Your task to perform on an android device: How do I get to the nearest Apple Store? Image 0: 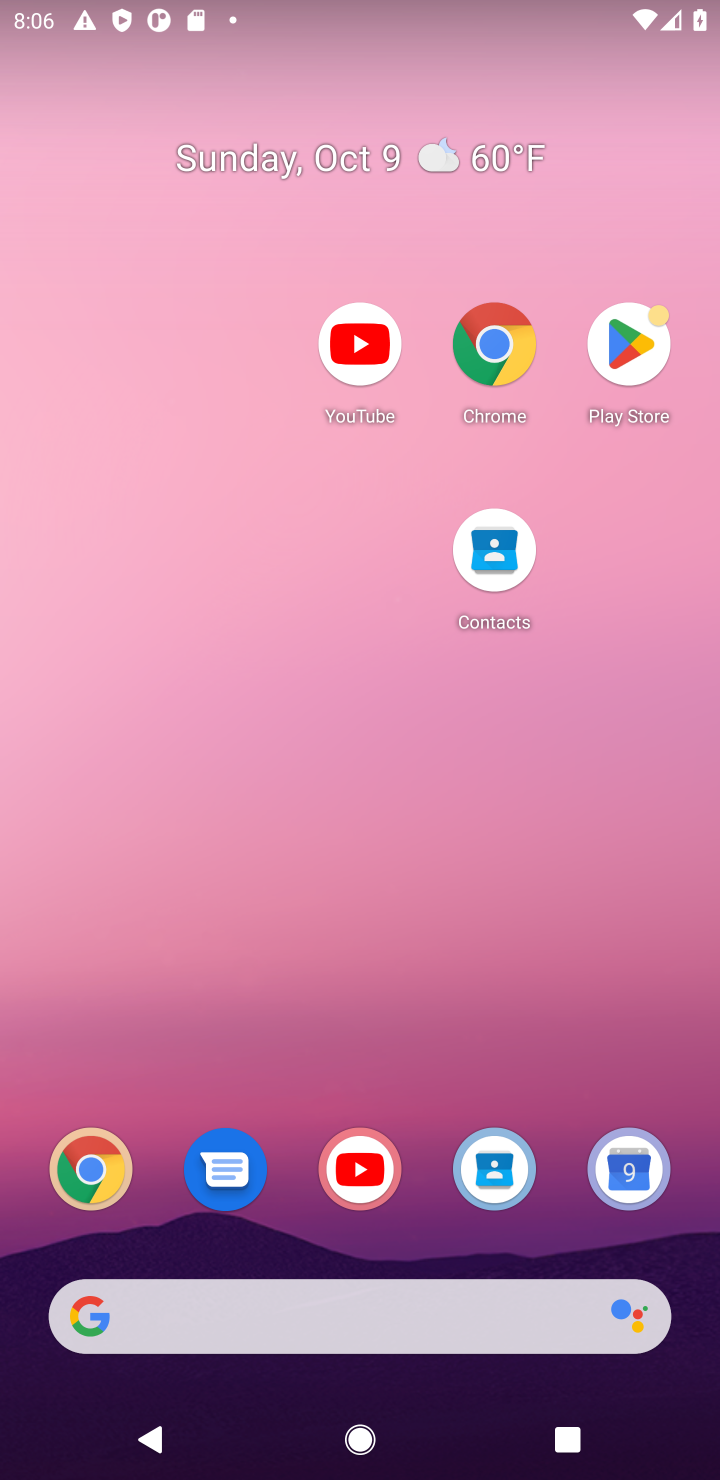
Step 0: drag from (445, 1257) to (365, 180)
Your task to perform on an android device: How do I get to the nearest Apple Store? Image 1: 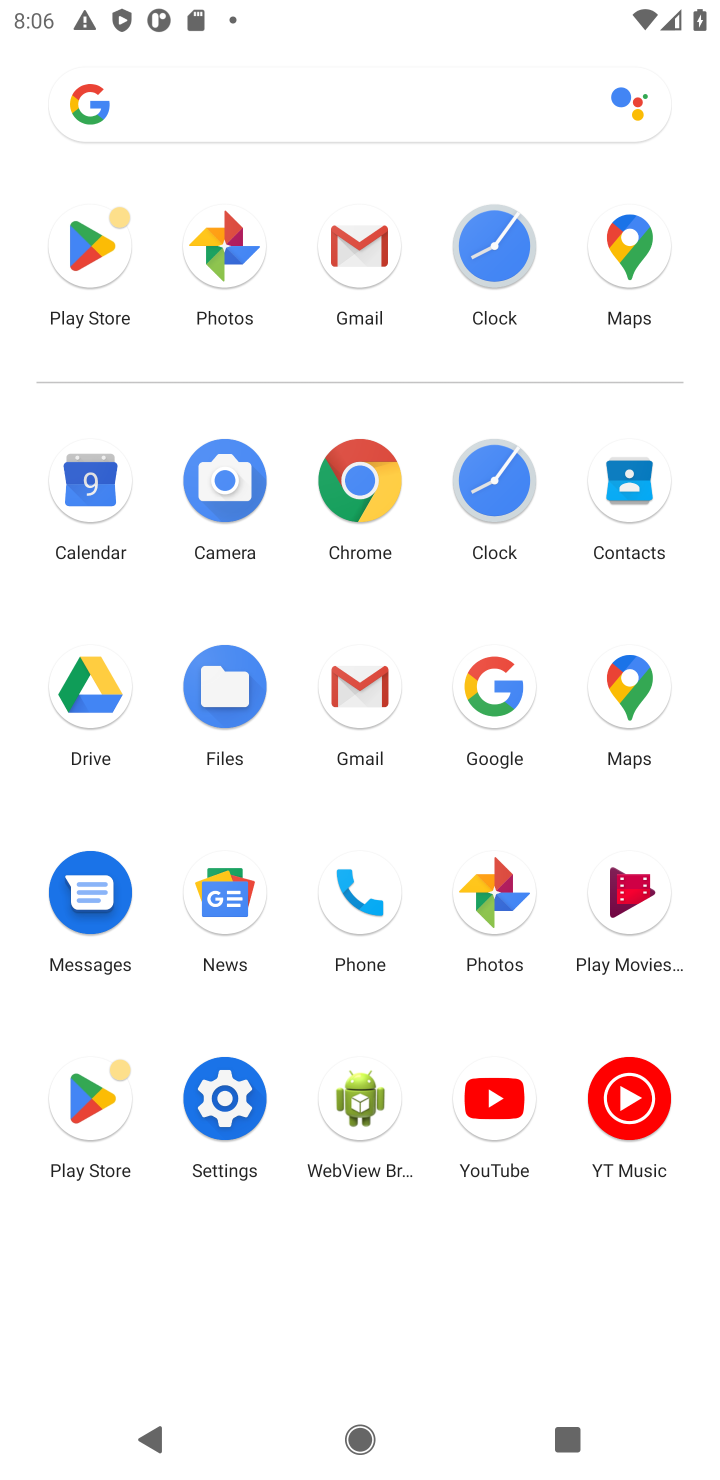
Step 1: click (355, 477)
Your task to perform on an android device: How do I get to the nearest Apple Store? Image 2: 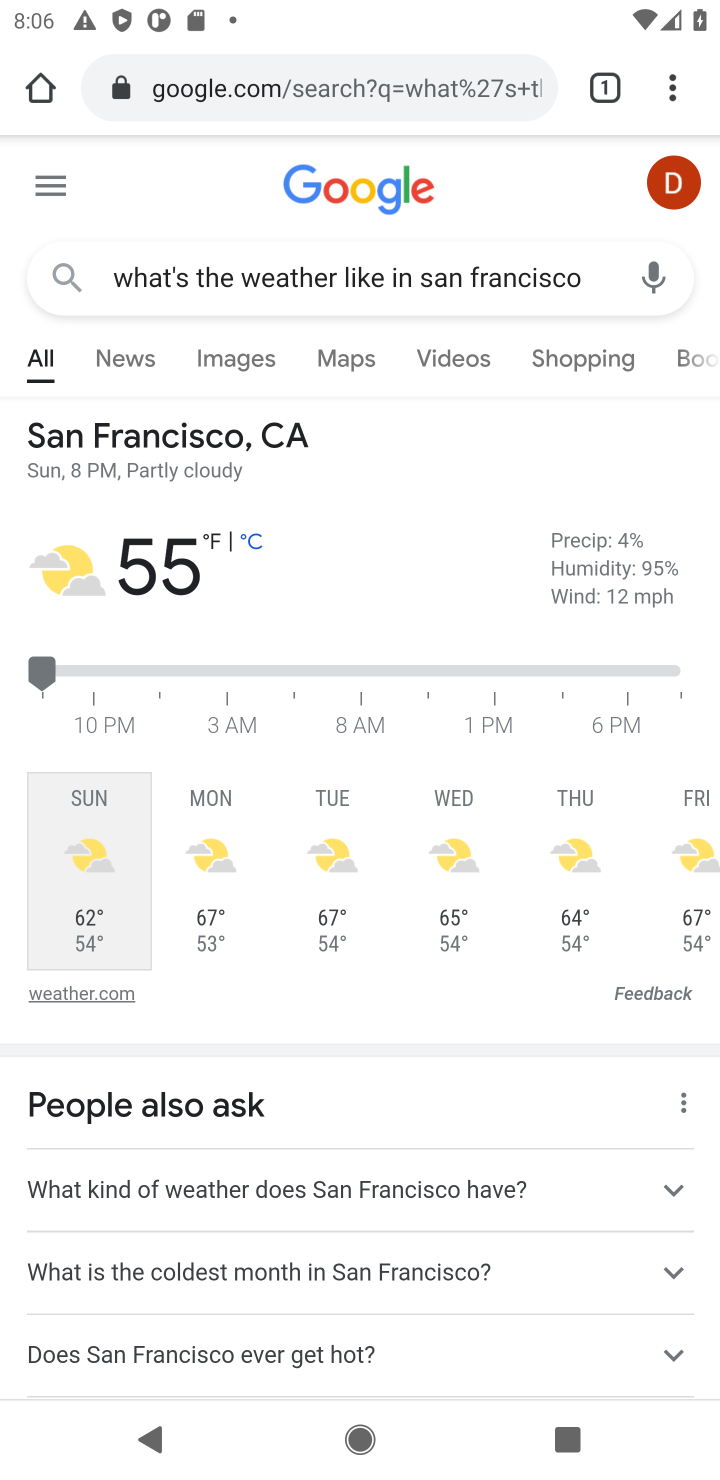
Step 2: click (416, 75)
Your task to perform on an android device: How do I get to the nearest Apple Store? Image 3: 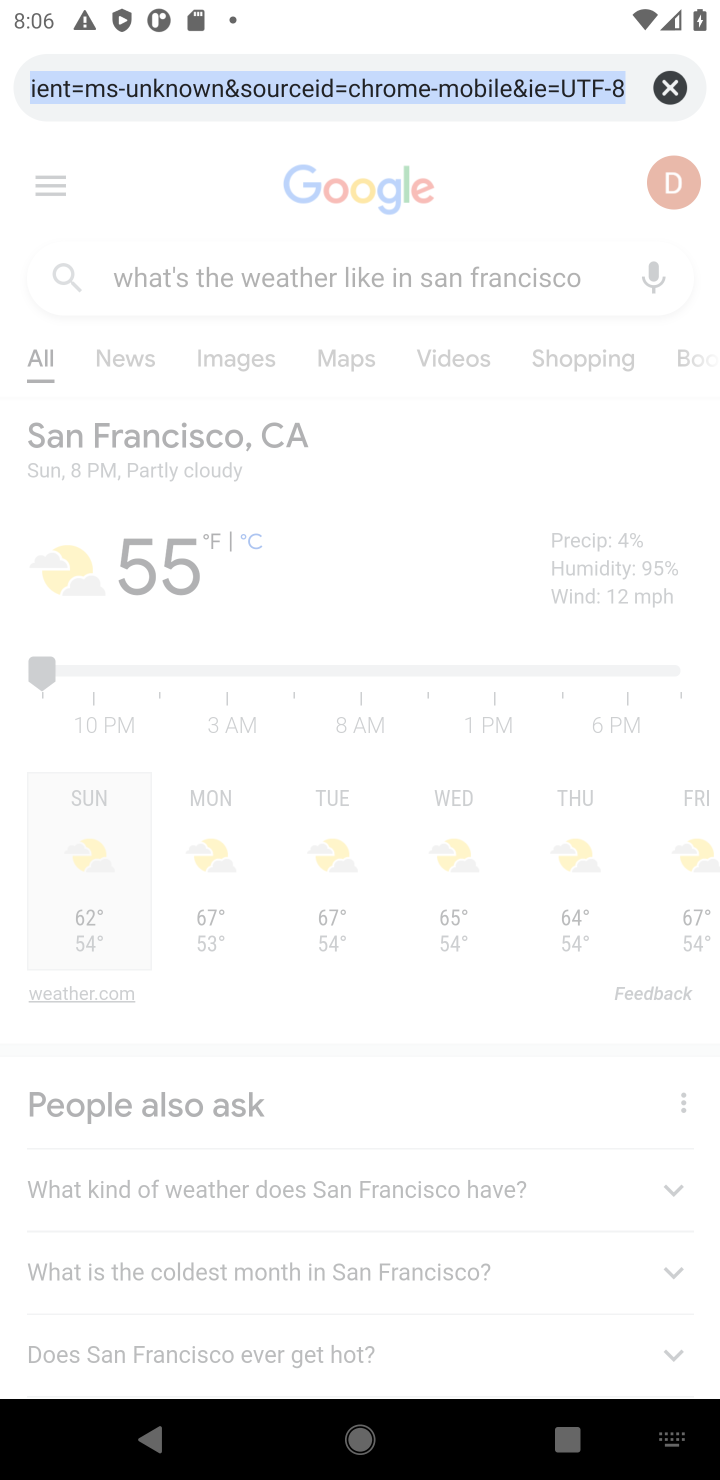
Step 3: type "nearest apple store"
Your task to perform on an android device: How do I get to the nearest Apple Store? Image 4: 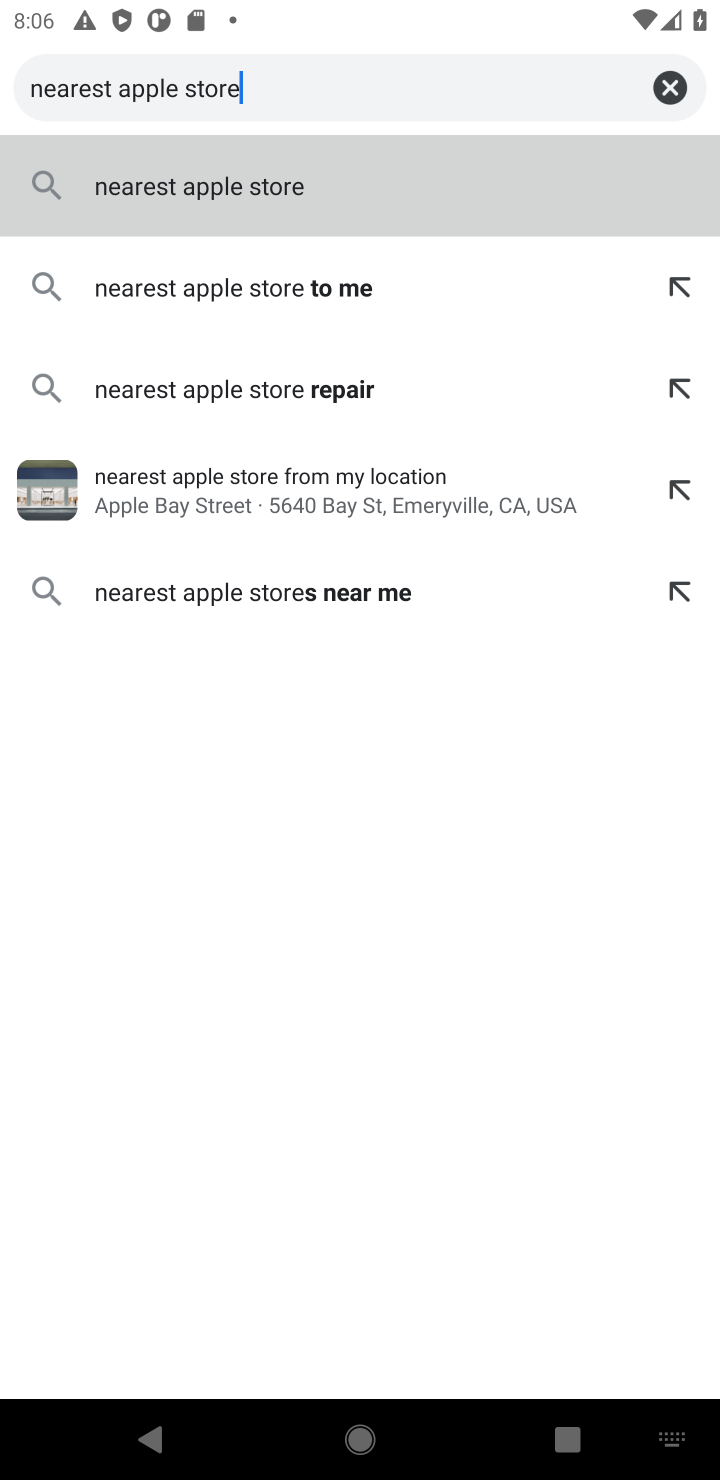
Step 4: press enter
Your task to perform on an android device: How do I get to the nearest Apple Store? Image 5: 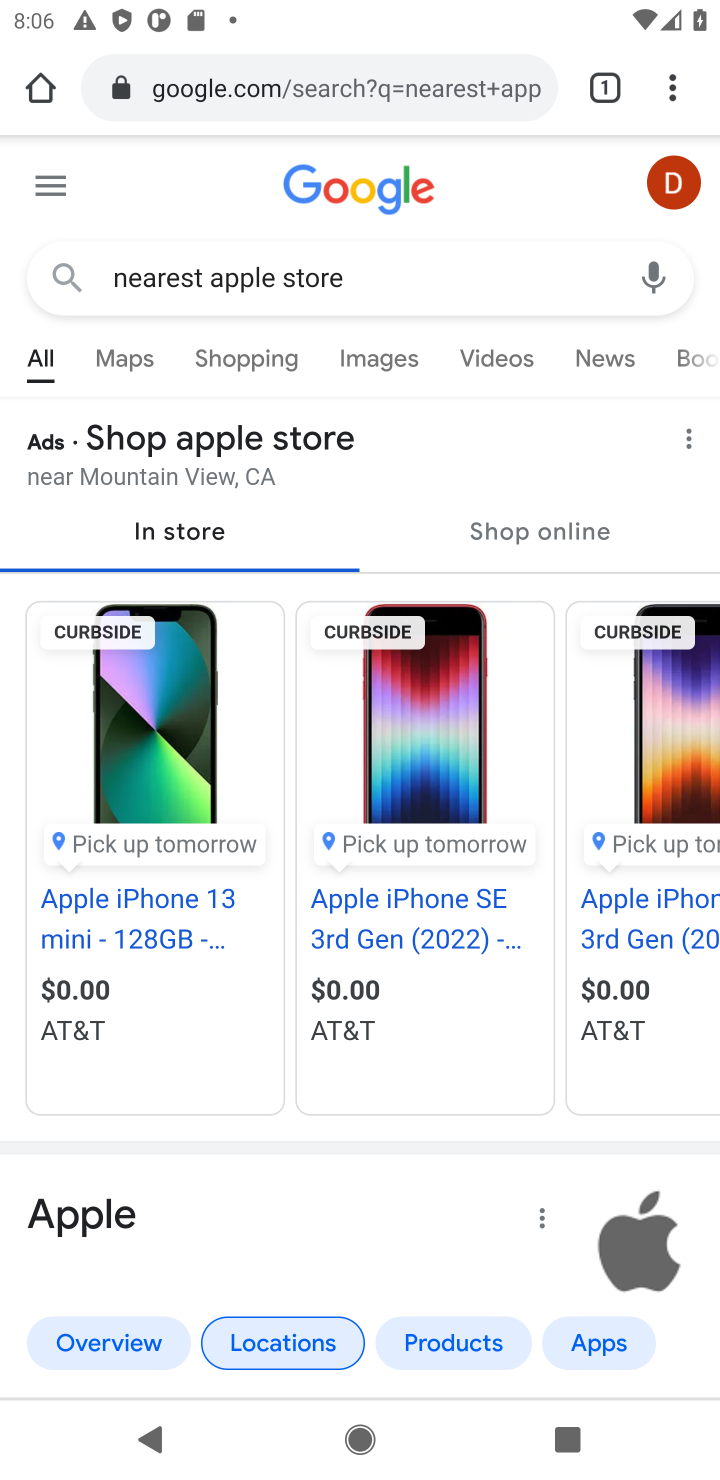
Step 5: task complete